Your task to perform on an android device: Open Chrome and go to the settings page Image 0: 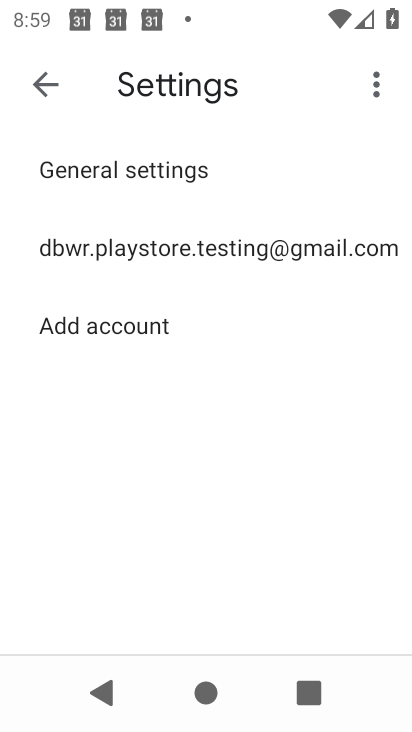
Step 0: press home button
Your task to perform on an android device: Open Chrome and go to the settings page Image 1: 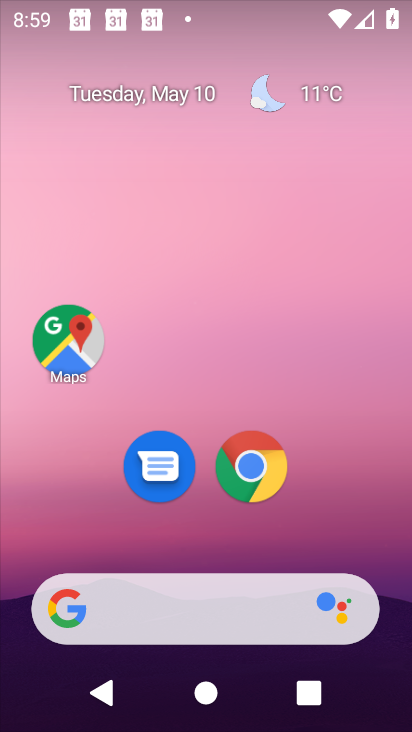
Step 1: click (280, 474)
Your task to perform on an android device: Open Chrome and go to the settings page Image 2: 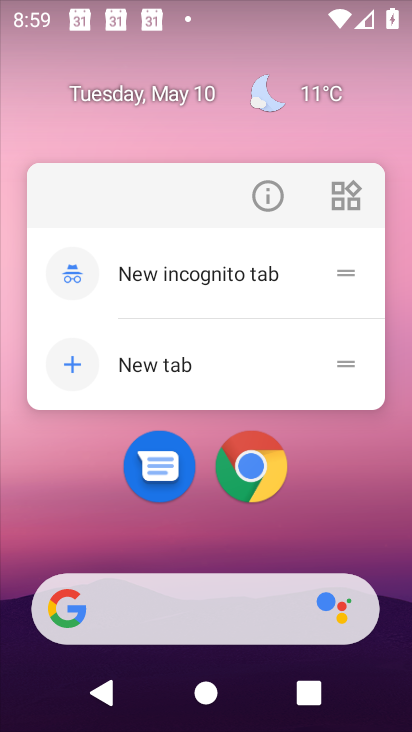
Step 2: click (277, 461)
Your task to perform on an android device: Open Chrome and go to the settings page Image 3: 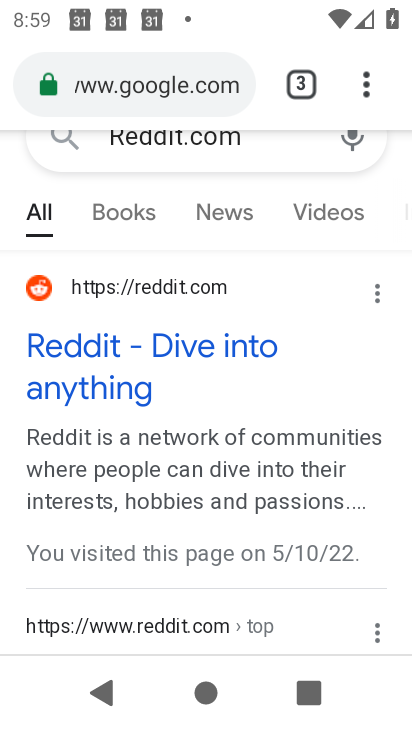
Step 3: click (372, 92)
Your task to perform on an android device: Open Chrome and go to the settings page Image 4: 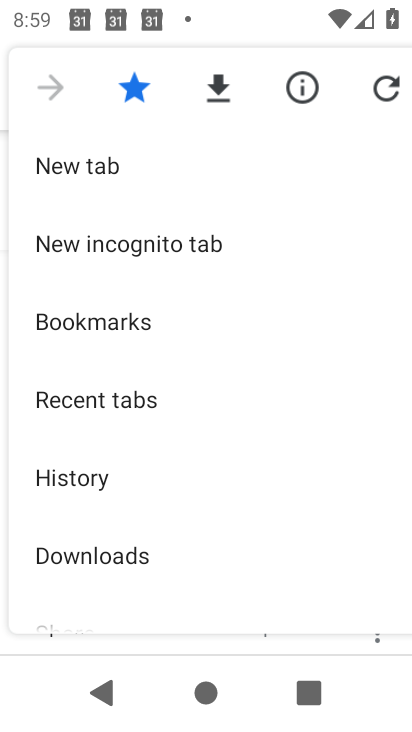
Step 4: drag from (162, 575) to (206, 55)
Your task to perform on an android device: Open Chrome and go to the settings page Image 5: 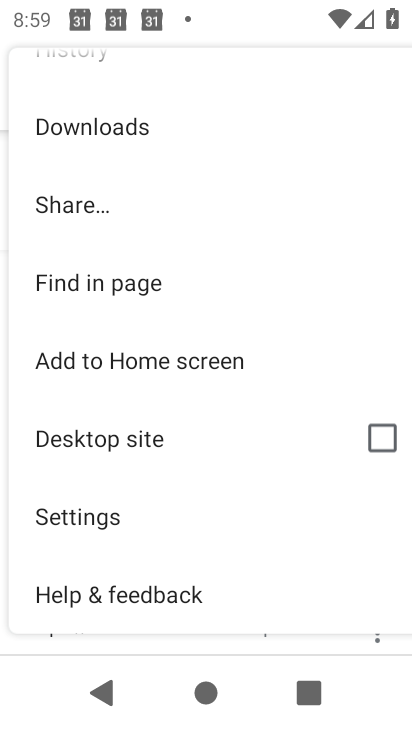
Step 5: click (83, 525)
Your task to perform on an android device: Open Chrome and go to the settings page Image 6: 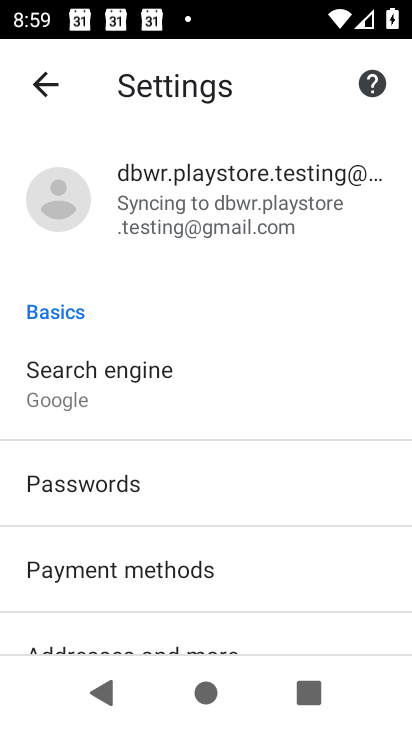
Step 6: task complete